Your task to perform on an android device: change keyboard looks Image 0: 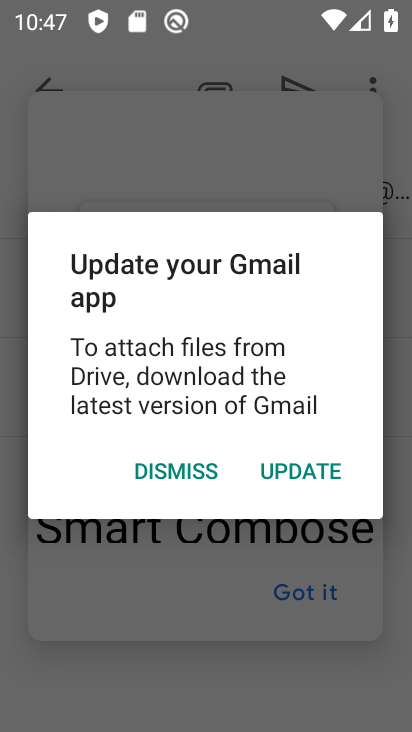
Step 0: press home button
Your task to perform on an android device: change keyboard looks Image 1: 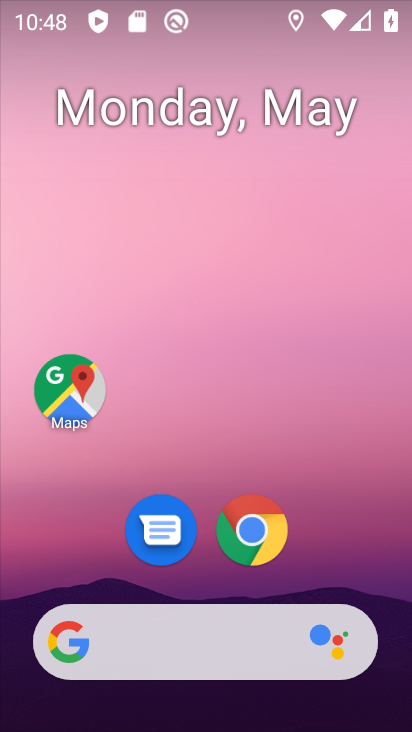
Step 1: drag from (328, 547) to (282, 67)
Your task to perform on an android device: change keyboard looks Image 2: 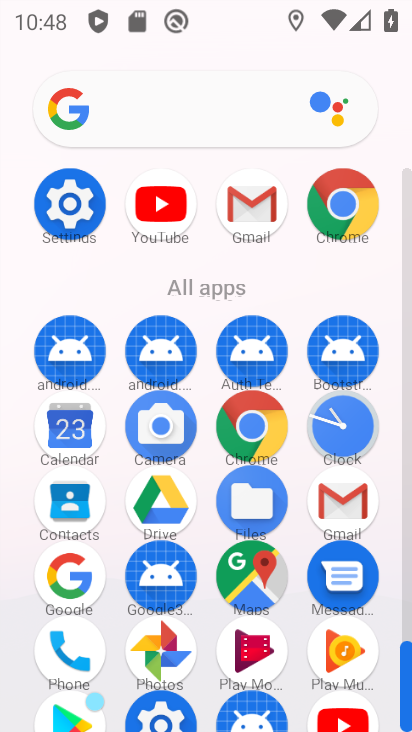
Step 2: click (70, 204)
Your task to perform on an android device: change keyboard looks Image 3: 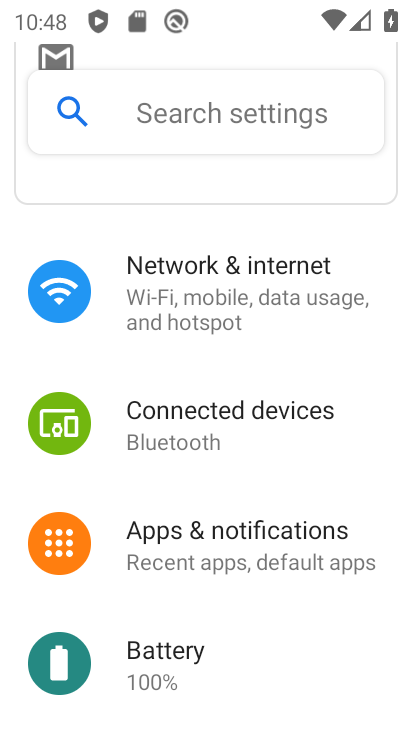
Step 3: drag from (182, 486) to (224, 298)
Your task to perform on an android device: change keyboard looks Image 4: 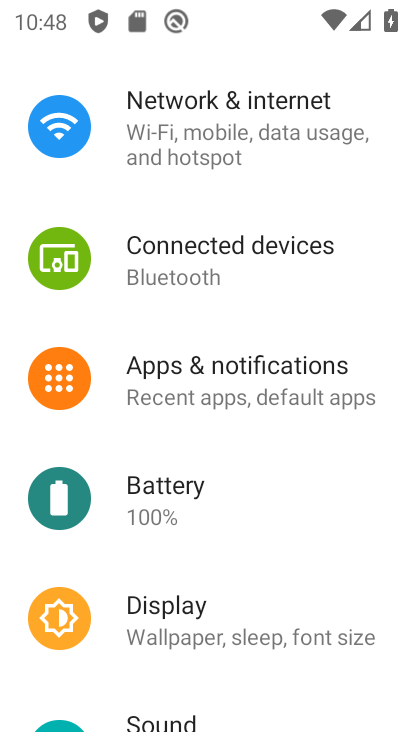
Step 4: drag from (193, 554) to (222, 377)
Your task to perform on an android device: change keyboard looks Image 5: 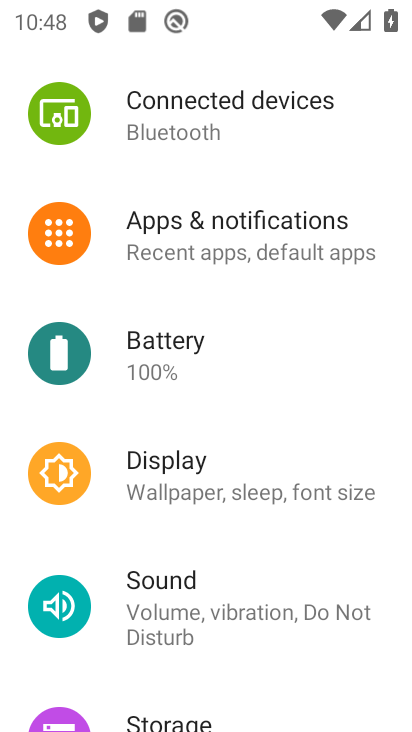
Step 5: drag from (231, 549) to (283, 379)
Your task to perform on an android device: change keyboard looks Image 6: 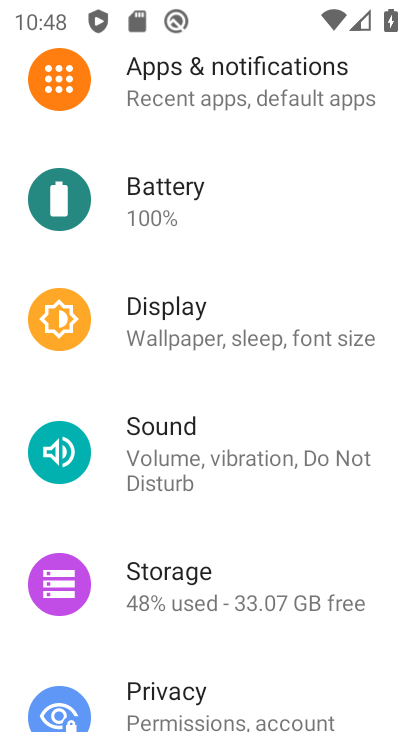
Step 6: drag from (156, 523) to (212, 334)
Your task to perform on an android device: change keyboard looks Image 7: 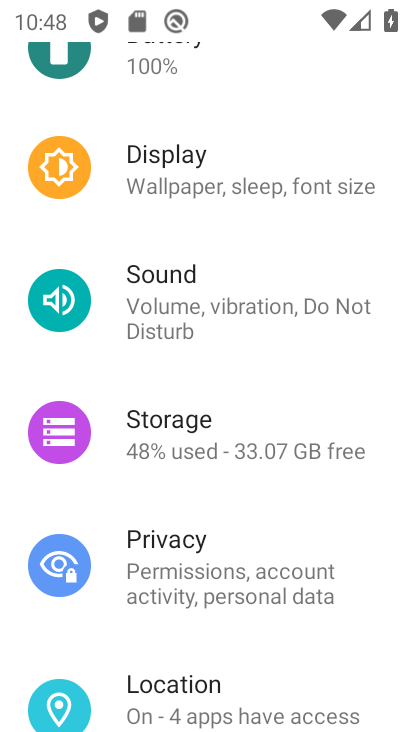
Step 7: drag from (157, 503) to (225, 353)
Your task to perform on an android device: change keyboard looks Image 8: 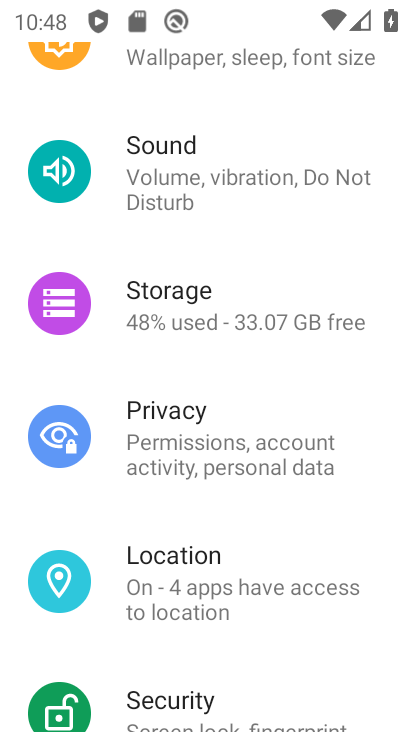
Step 8: drag from (147, 515) to (243, 343)
Your task to perform on an android device: change keyboard looks Image 9: 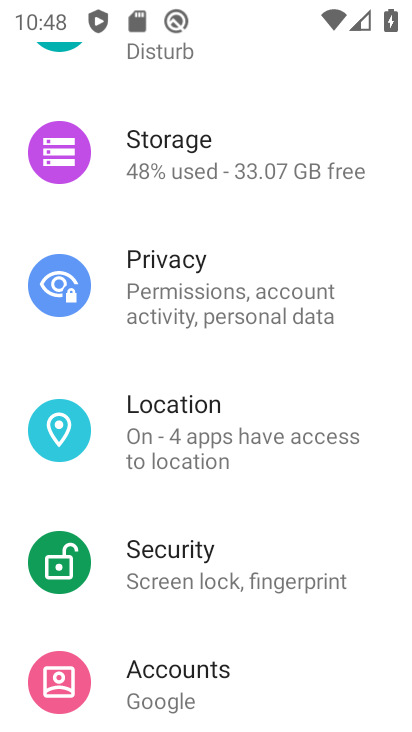
Step 9: drag from (148, 519) to (239, 325)
Your task to perform on an android device: change keyboard looks Image 10: 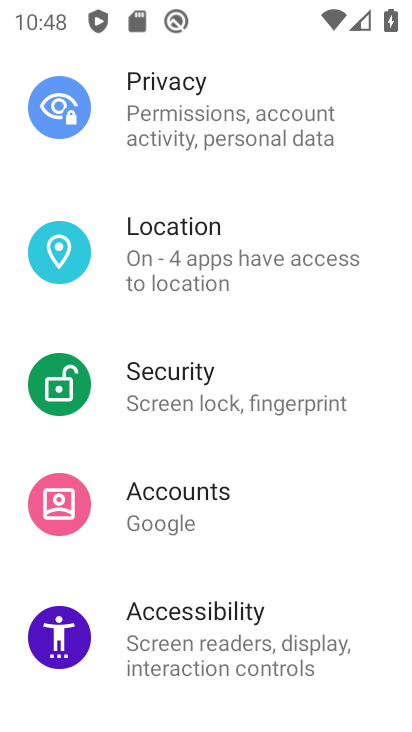
Step 10: drag from (148, 459) to (205, 304)
Your task to perform on an android device: change keyboard looks Image 11: 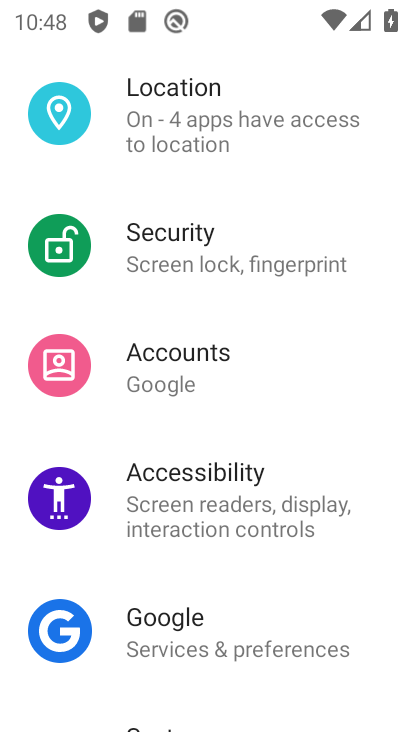
Step 11: drag from (131, 561) to (211, 378)
Your task to perform on an android device: change keyboard looks Image 12: 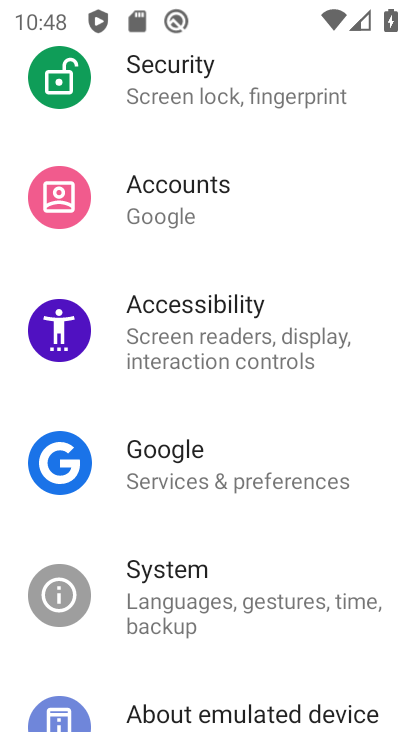
Step 12: drag from (117, 418) to (197, 258)
Your task to perform on an android device: change keyboard looks Image 13: 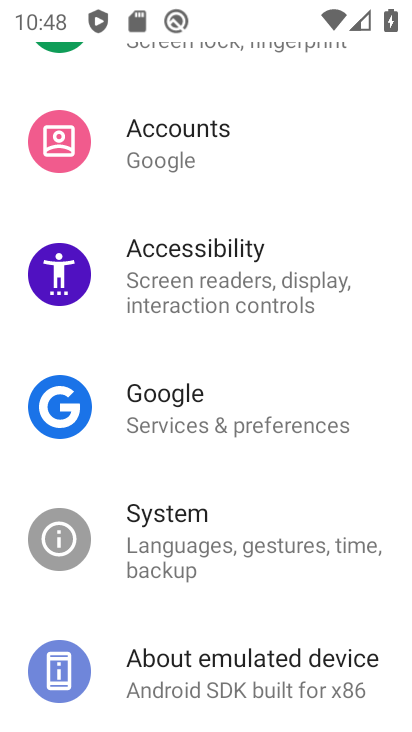
Step 13: click (183, 542)
Your task to perform on an android device: change keyboard looks Image 14: 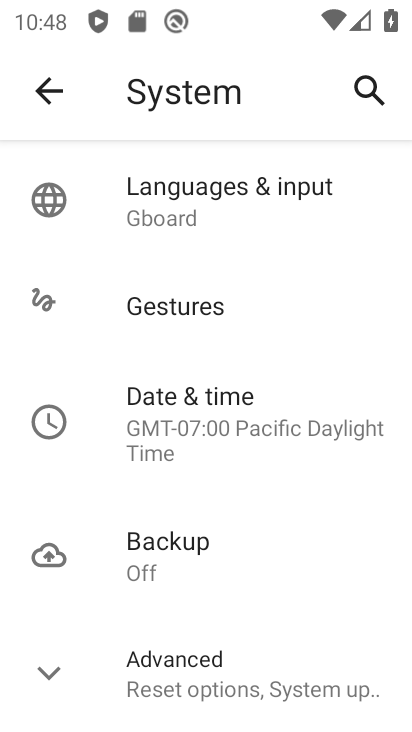
Step 14: click (189, 182)
Your task to perform on an android device: change keyboard looks Image 15: 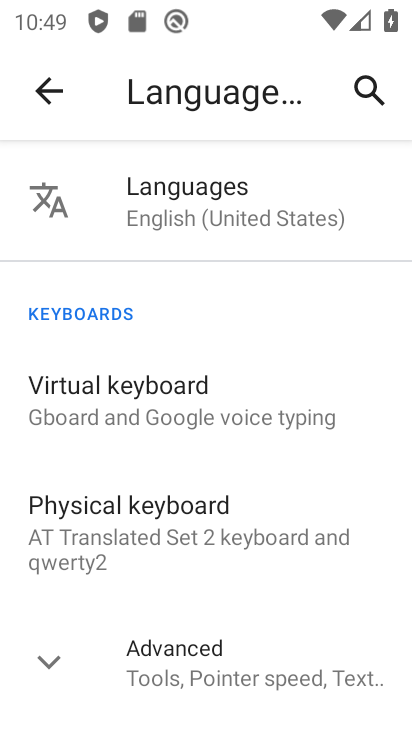
Step 15: click (142, 386)
Your task to perform on an android device: change keyboard looks Image 16: 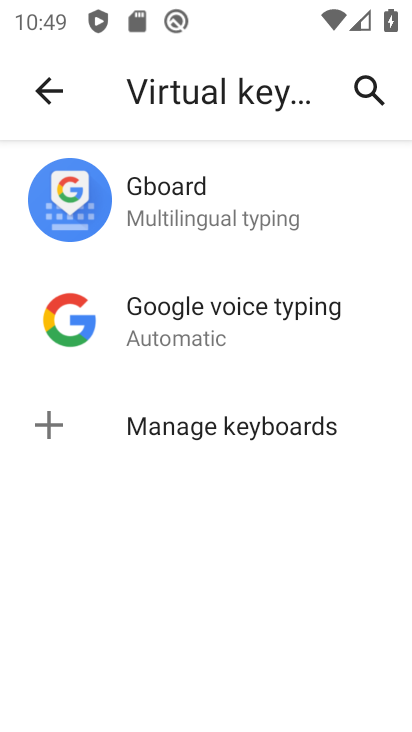
Step 16: click (163, 202)
Your task to perform on an android device: change keyboard looks Image 17: 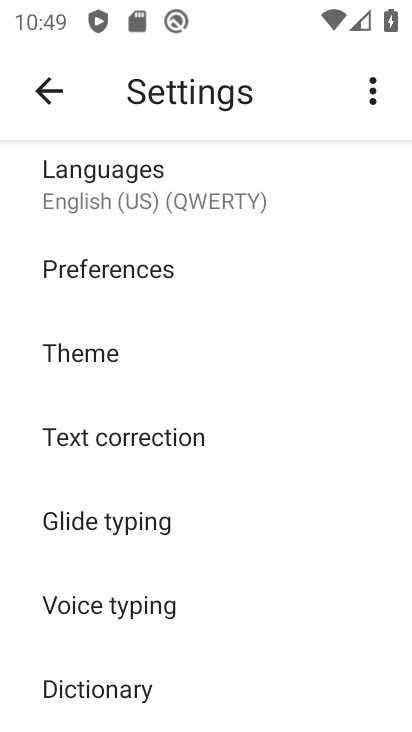
Step 17: click (99, 351)
Your task to perform on an android device: change keyboard looks Image 18: 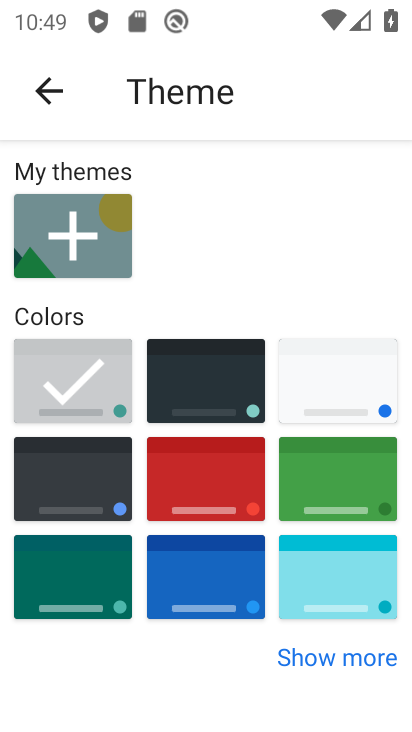
Step 18: click (219, 382)
Your task to perform on an android device: change keyboard looks Image 19: 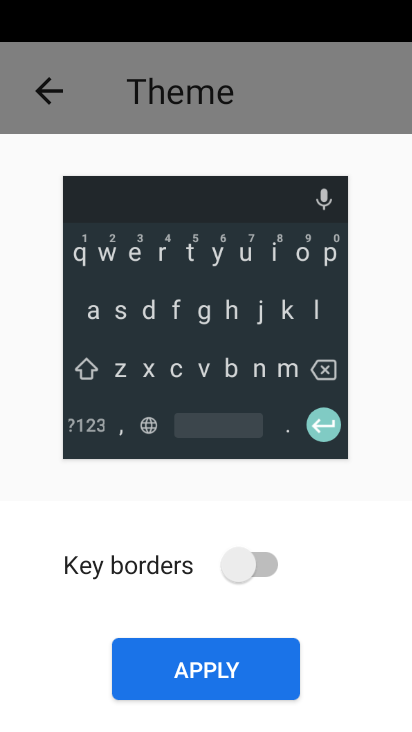
Step 19: click (250, 557)
Your task to perform on an android device: change keyboard looks Image 20: 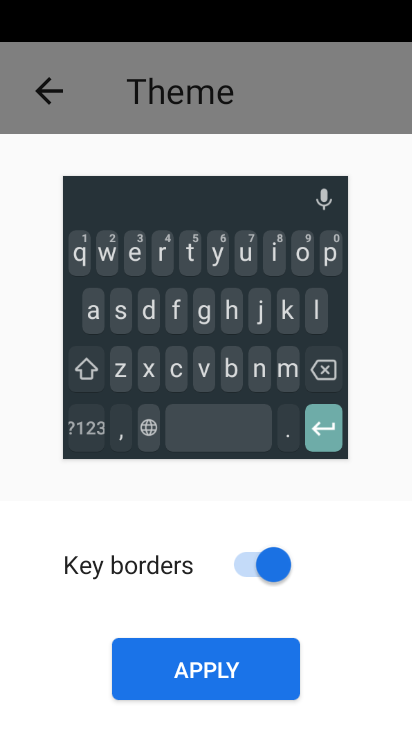
Step 20: click (204, 676)
Your task to perform on an android device: change keyboard looks Image 21: 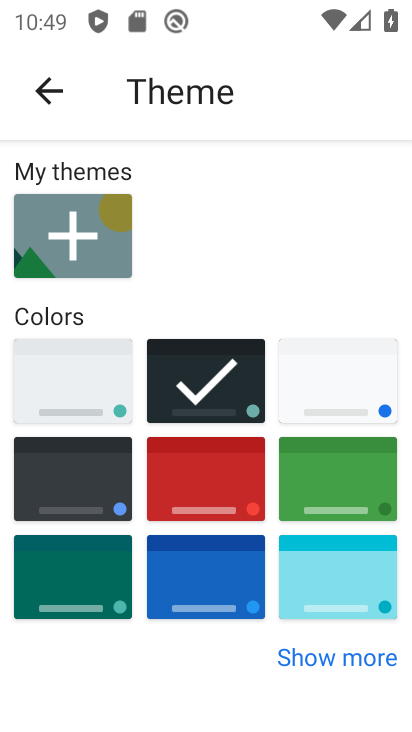
Step 21: task complete